Your task to perform on an android device: turn off data saver in the chrome app Image 0: 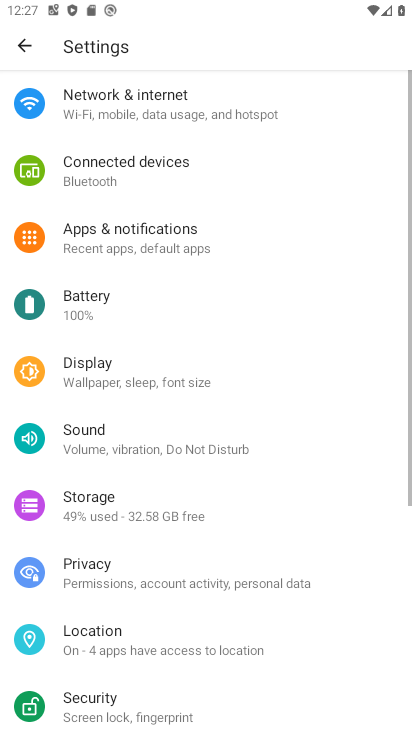
Step 0: press home button
Your task to perform on an android device: turn off data saver in the chrome app Image 1: 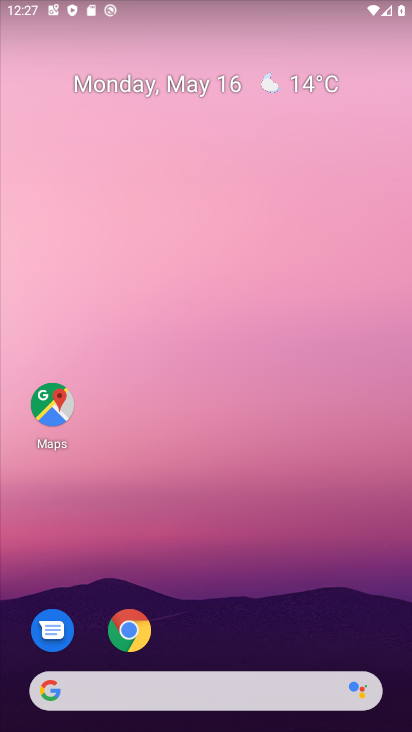
Step 1: click (134, 633)
Your task to perform on an android device: turn off data saver in the chrome app Image 2: 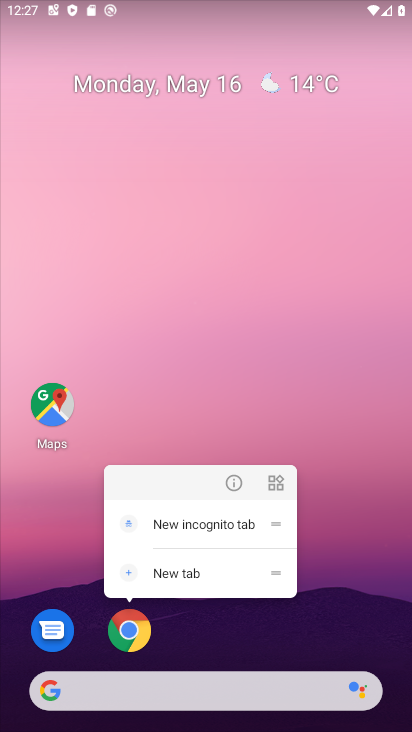
Step 2: click (133, 631)
Your task to perform on an android device: turn off data saver in the chrome app Image 3: 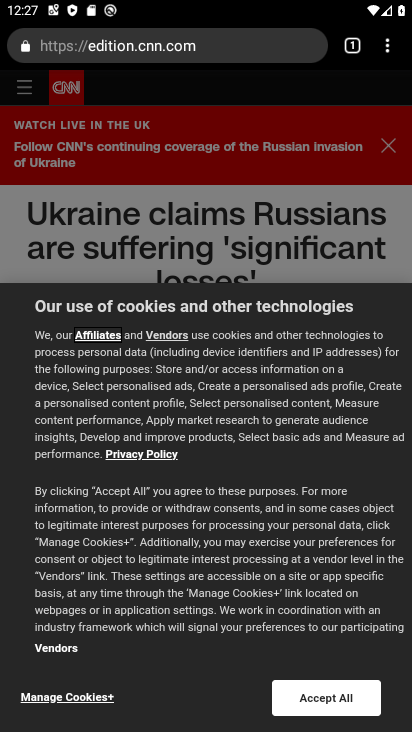
Step 3: click (396, 54)
Your task to perform on an android device: turn off data saver in the chrome app Image 4: 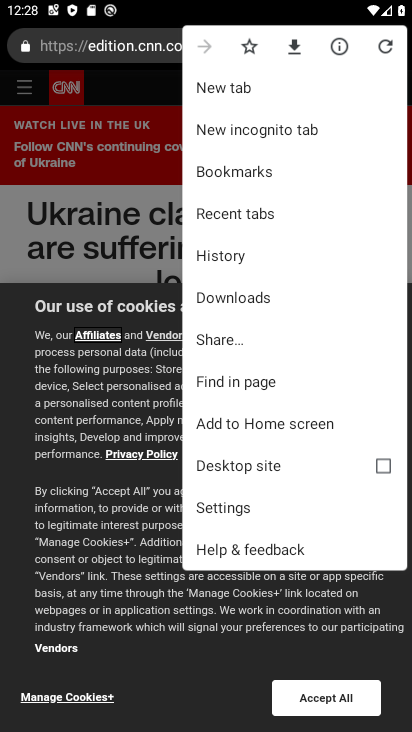
Step 4: click (275, 498)
Your task to perform on an android device: turn off data saver in the chrome app Image 5: 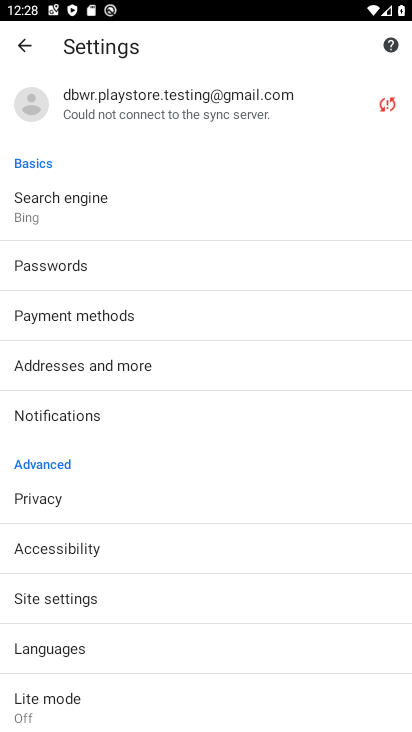
Step 5: click (102, 693)
Your task to perform on an android device: turn off data saver in the chrome app Image 6: 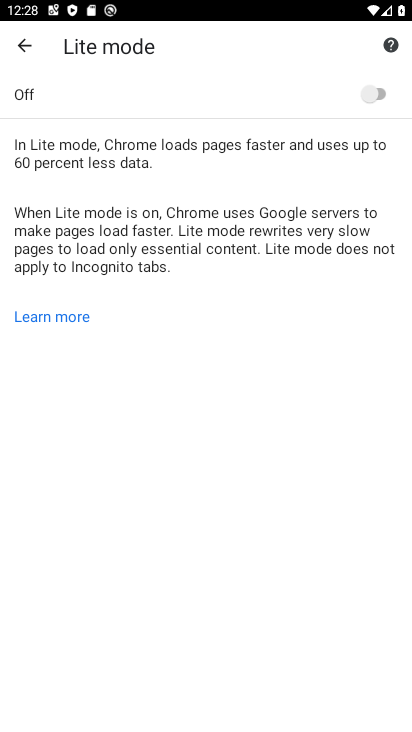
Step 6: task complete